Your task to perform on an android device: Do I have any events tomorrow? Image 0: 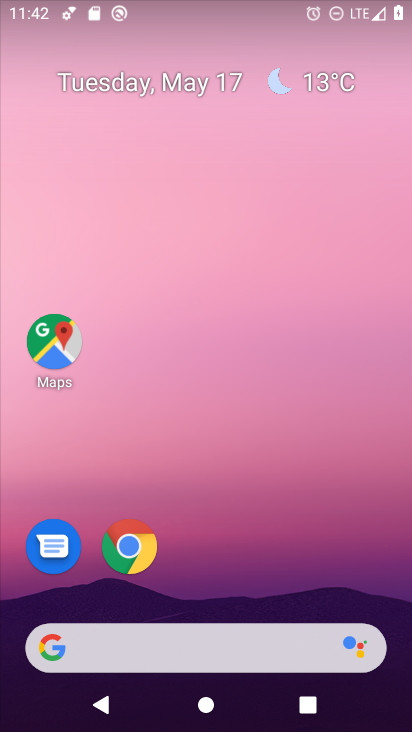
Step 0: drag from (311, 592) to (267, 35)
Your task to perform on an android device: Do I have any events tomorrow? Image 1: 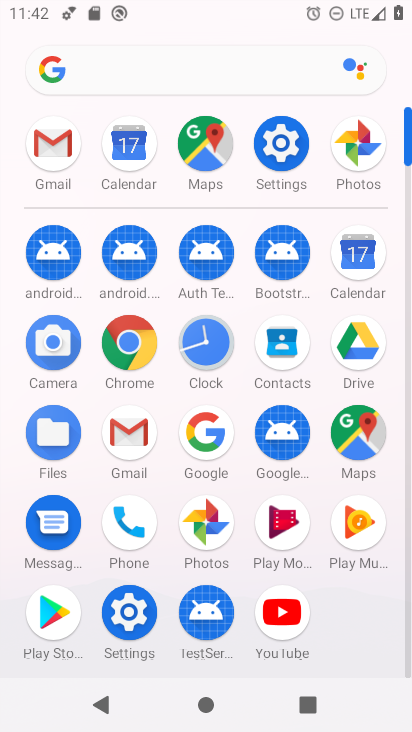
Step 1: click (123, 164)
Your task to perform on an android device: Do I have any events tomorrow? Image 2: 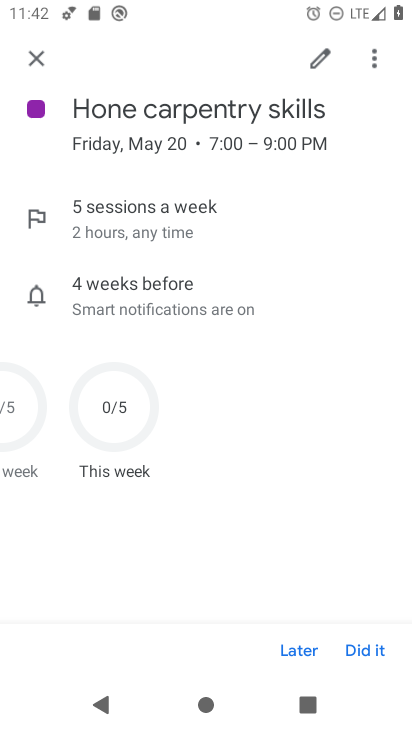
Step 2: click (43, 69)
Your task to perform on an android device: Do I have any events tomorrow? Image 3: 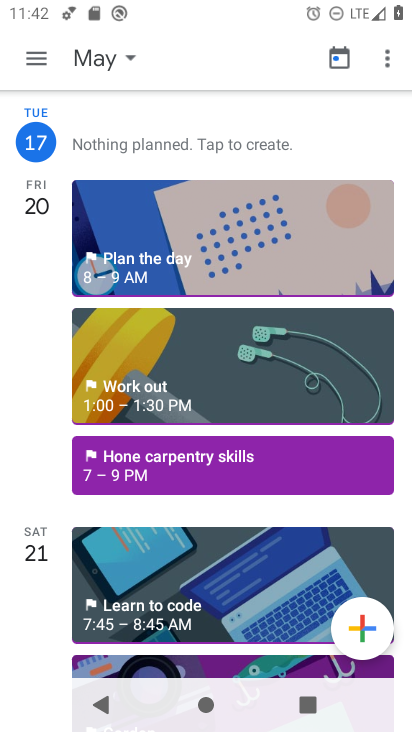
Step 3: click (129, 56)
Your task to perform on an android device: Do I have any events tomorrow? Image 4: 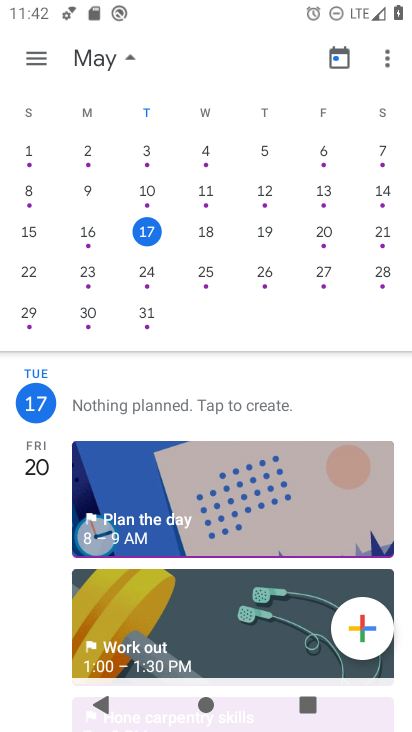
Step 4: click (205, 237)
Your task to perform on an android device: Do I have any events tomorrow? Image 5: 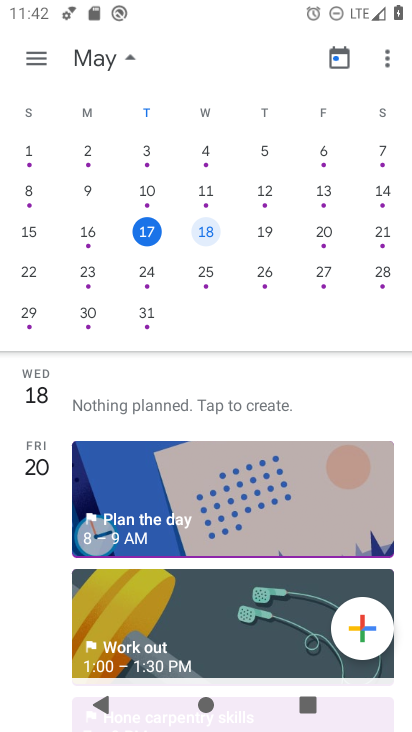
Step 5: click (199, 406)
Your task to perform on an android device: Do I have any events tomorrow? Image 6: 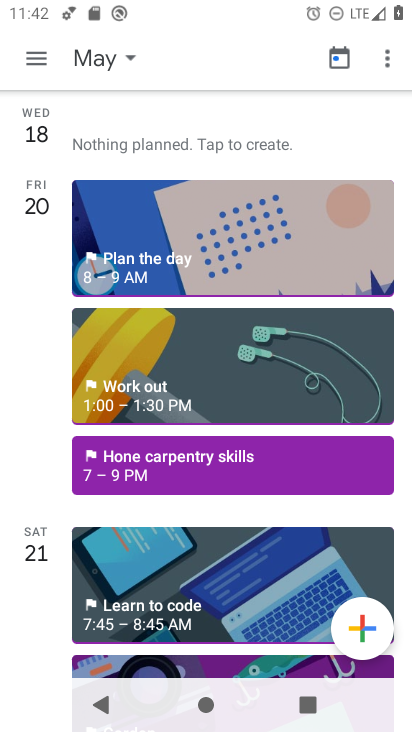
Step 6: click (128, 139)
Your task to perform on an android device: Do I have any events tomorrow? Image 7: 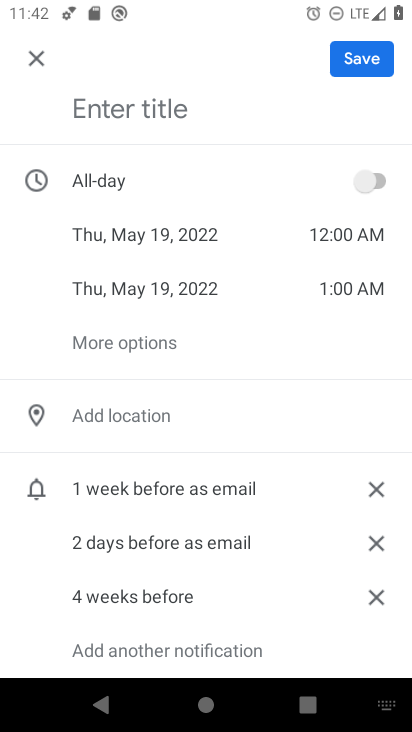
Step 7: task complete